Your task to perform on an android device: turn vacation reply on in the gmail app Image 0: 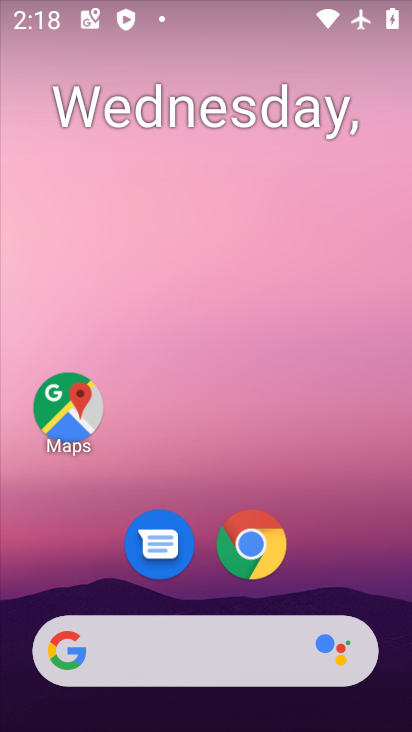
Step 0: drag from (370, 567) to (360, 35)
Your task to perform on an android device: turn vacation reply on in the gmail app Image 1: 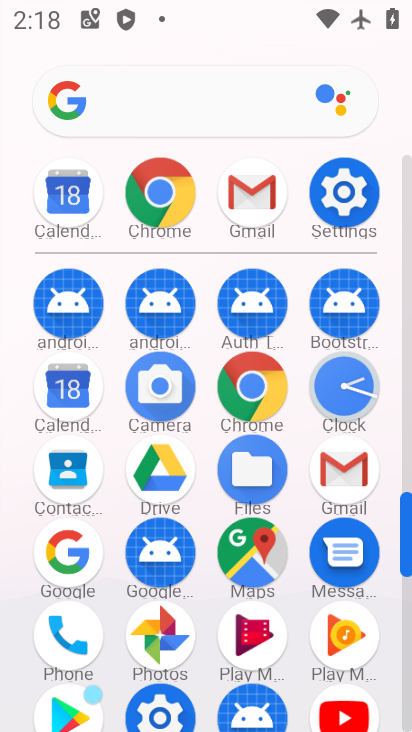
Step 1: click (323, 201)
Your task to perform on an android device: turn vacation reply on in the gmail app Image 2: 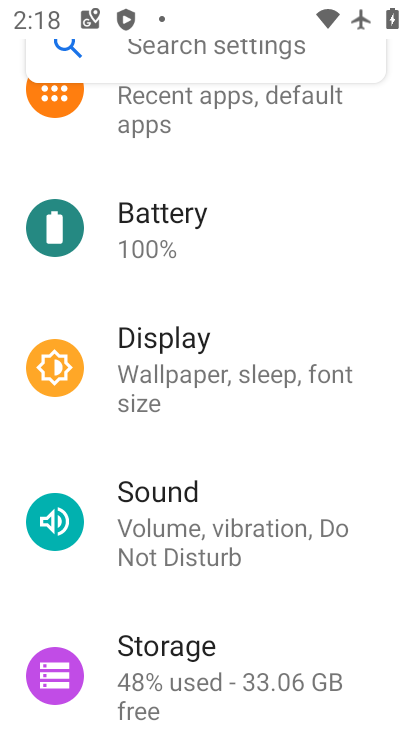
Step 2: drag from (147, 567) to (208, 263)
Your task to perform on an android device: turn vacation reply on in the gmail app Image 3: 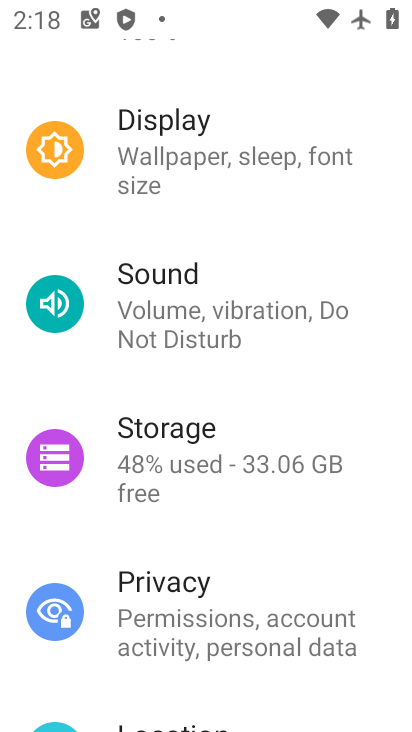
Step 3: press home button
Your task to perform on an android device: turn vacation reply on in the gmail app Image 4: 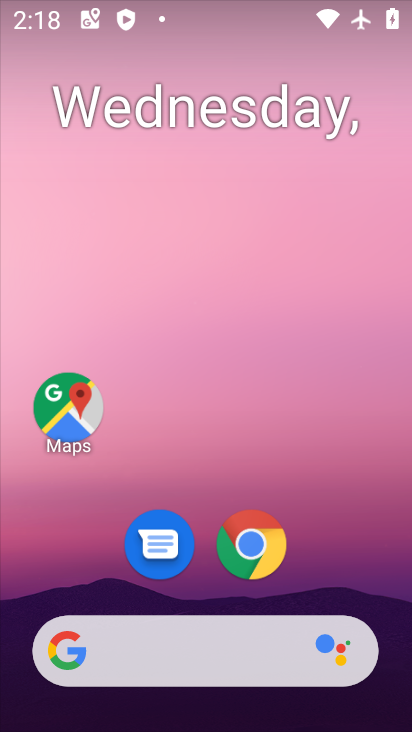
Step 4: drag from (390, 568) to (261, 56)
Your task to perform on an android device: turn vacation reply on in the gmail app Image 5: 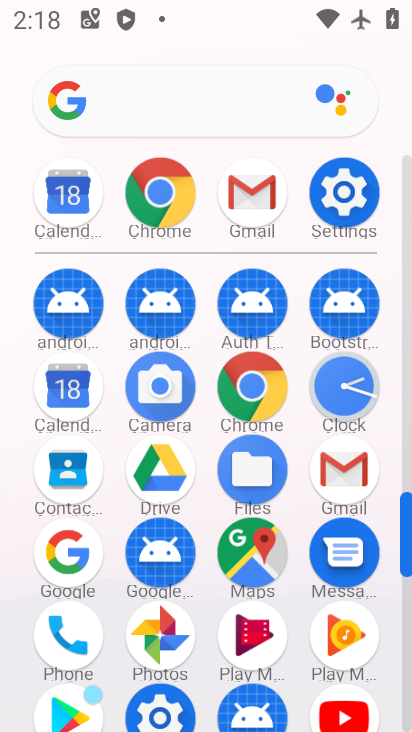
Step 5: click (353, 189)
Your task to perform on an android device: turn vacation reply on in the gmail app Image 6: 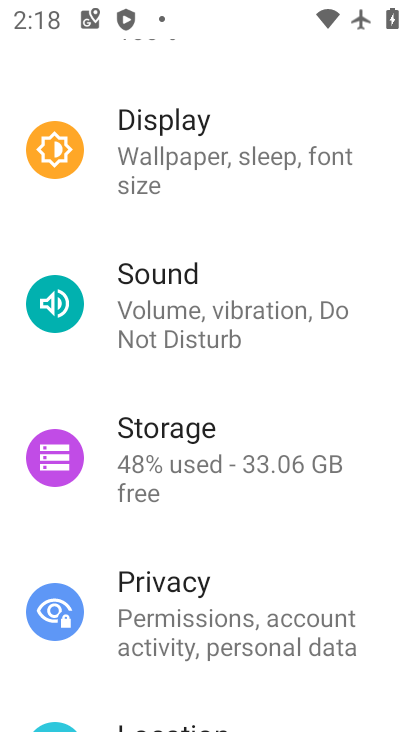
Step 6: drag from (193, 620) to (197, 368)
Your task to perform on an android device: turn vacation reply on in the gmail app Image 7: 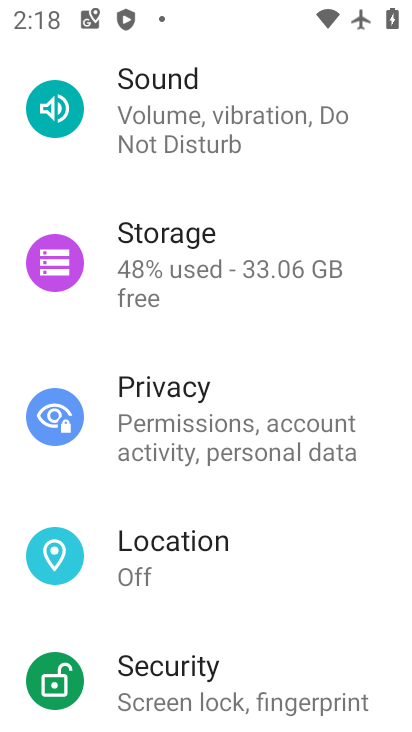
Step 7: drag from (220, 633) to (223, 40)
Your task to perform on an android device: turn vacation reply on in the gmail app Image 8: 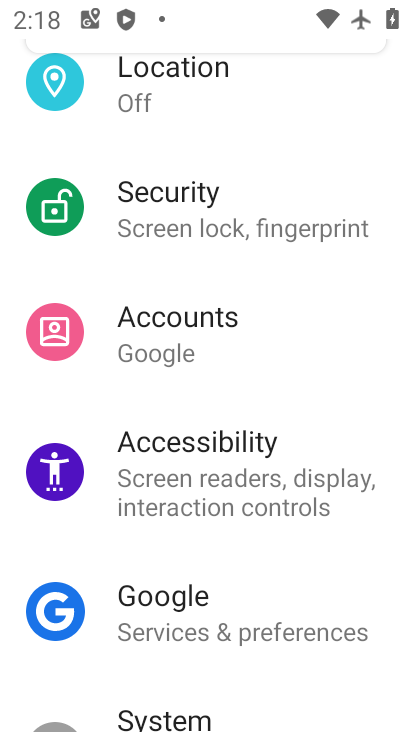
Step 8: drag from (175, 688) to (187, 247)
Your task to perform on an android device: turn vacation reply on in the gmail app Image 9: 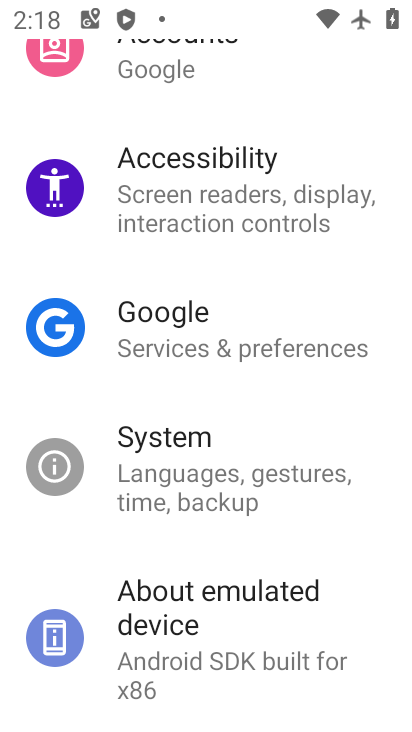
Step 9: click (176, 617)
Your task to perform on an android device: turn vacation reply on in the gmail app Image 10: 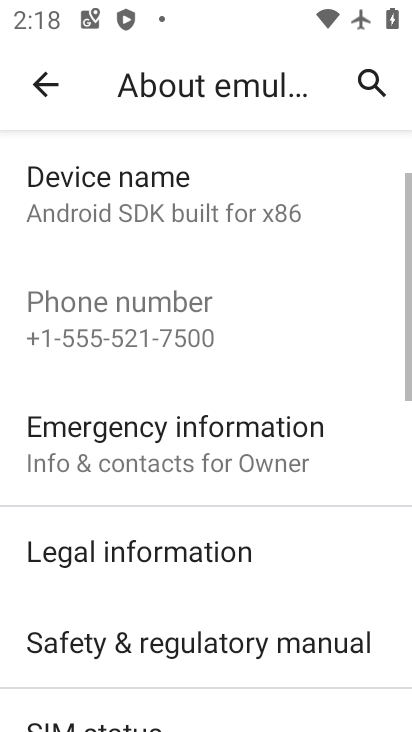
Step 10: press home button
Your task to perform on an android device: turn vacation reply on in the gmail app Image 11: 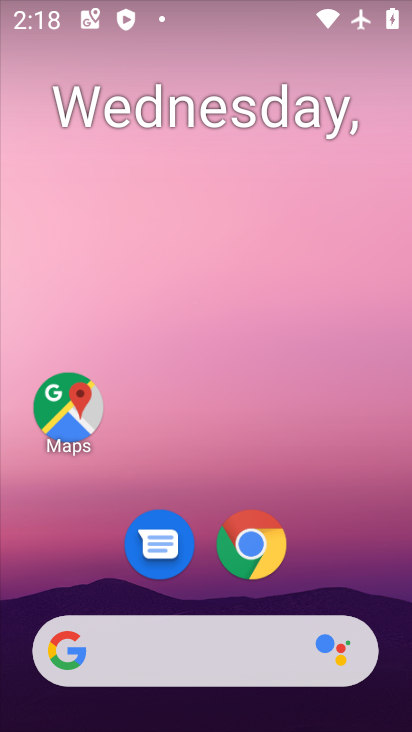
Step 11: drag from (69, 580) to (216, 19)
Your task to perform on an android device: turn vacation reply on in the gmail app Image 12: 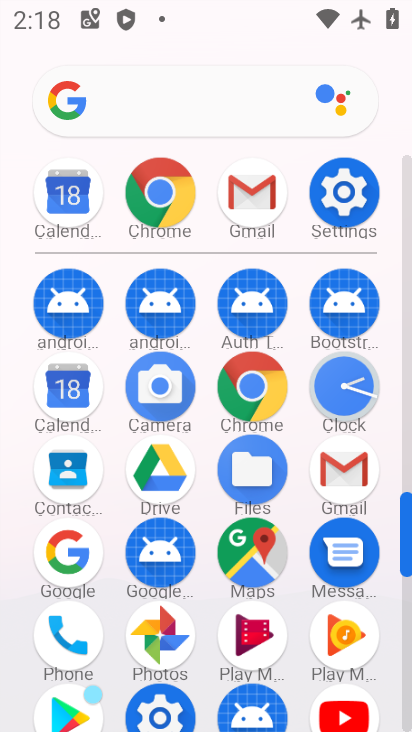
Step 12: click (245, 200)
Your task to perform on an android device: turn vacation reply on in the gmail app Image 13: 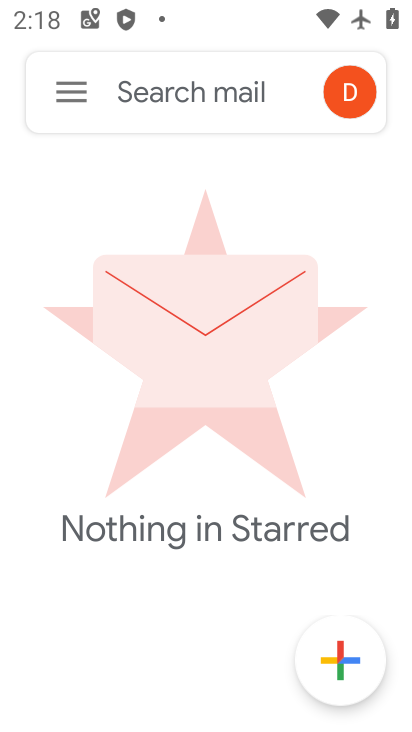
Step 13: click (72, 110)
Your task to perform on an android device: turn vacation reply on in the gmail app Image 14: 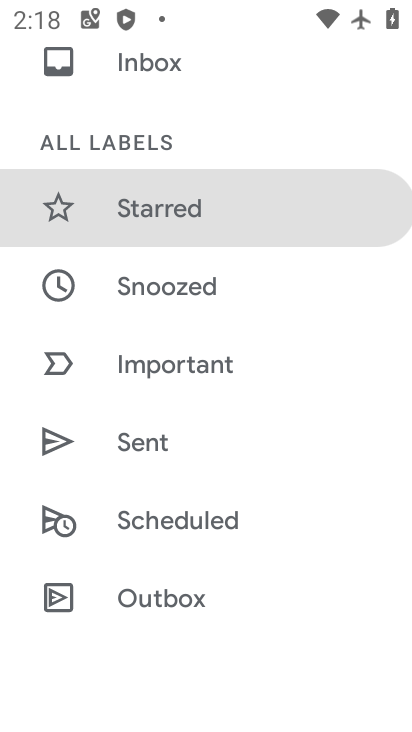
Step 14: drag from (144, 639) to (238, 220)
Your task to perform on an android device: turn vacation reply on in the gmail app Image 15: 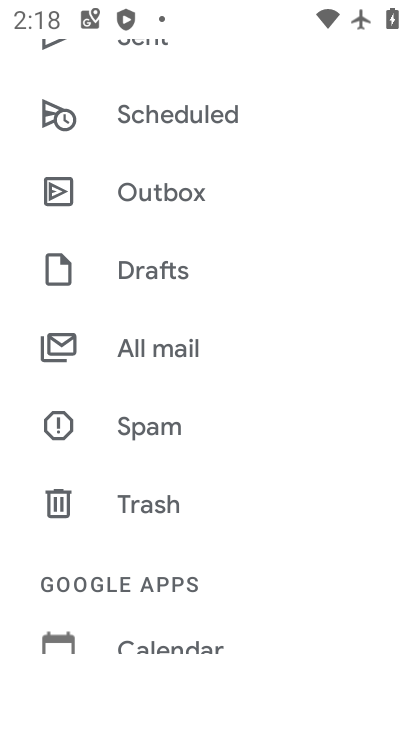
Step 15: drag from (215, 649) to (283, 161)
Your task to perform on an android device: turn vacation reply on in the gmail app Image 16: 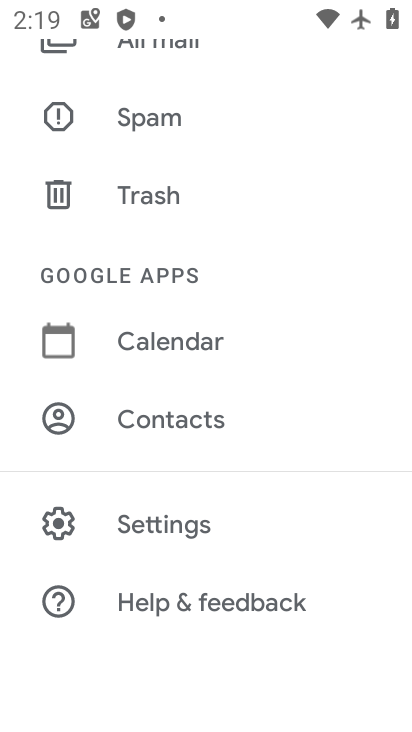
Step 16: click (162, 511)
Your task to perform on an android device: turn vacation reply on in the gmail app Image 17: 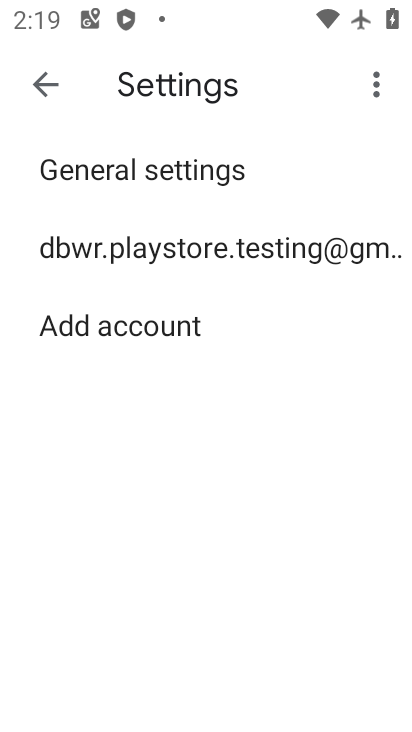
Step 17: click (191, 254)
Your task to perform on an android device: turn vacation reply on in the gmail app Image 18: 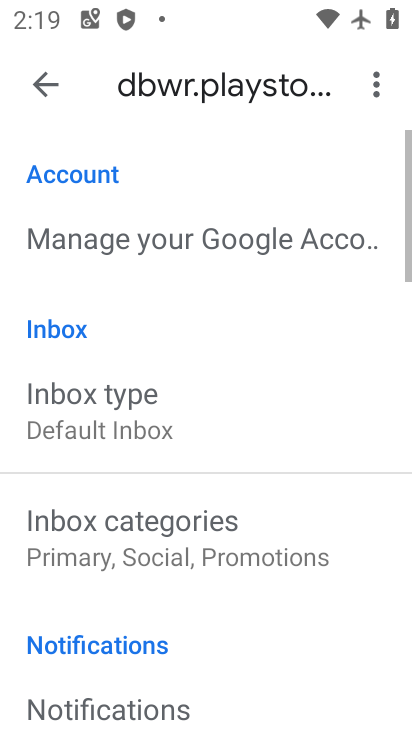
Step 18: drag from (146, 544) to (240, 167)
Your task to perform on an android device: turn vacation reply on in the gmail app Image 19: 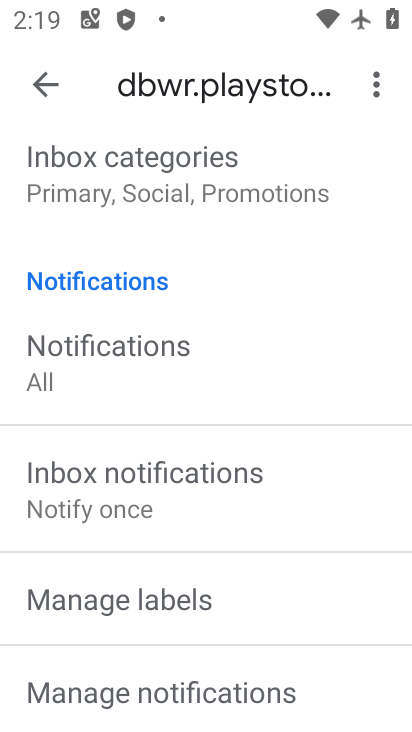
Step 19: drag from (190, 630) to (312, 133)
Your task to perform on an android device: turn vacation reply on in the gmail app Image 20: 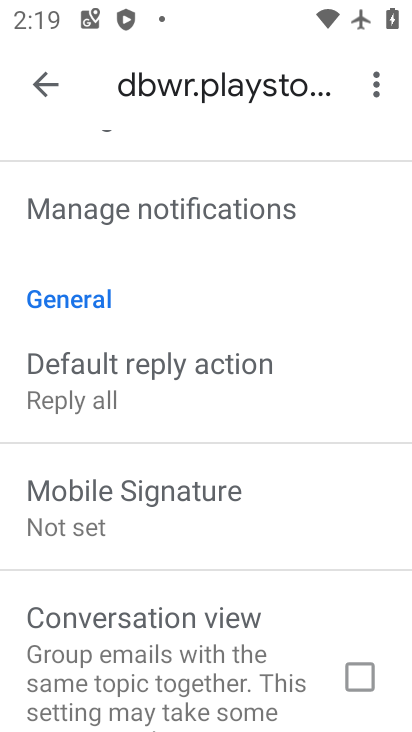
Step 20: drag from (197, 637) to (275, 285)
Your task to perform on an android device: turn vacation reply on in the gmail app Image 21: 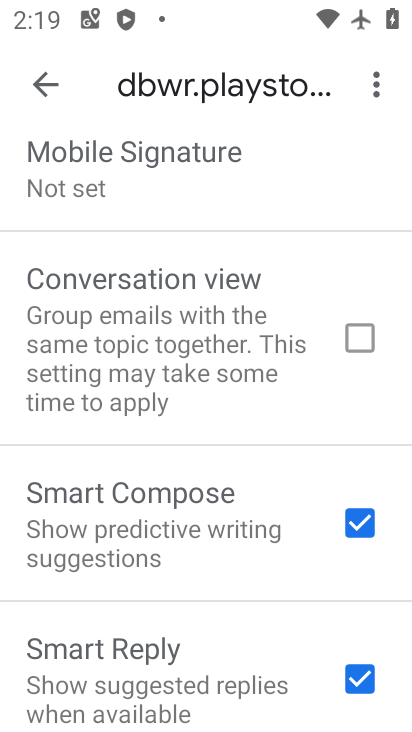
Step 21: drag from (215, 606) to (280, 306)
Your task to perform on an android device: turn vacation reply on in the gmail app Image 22: 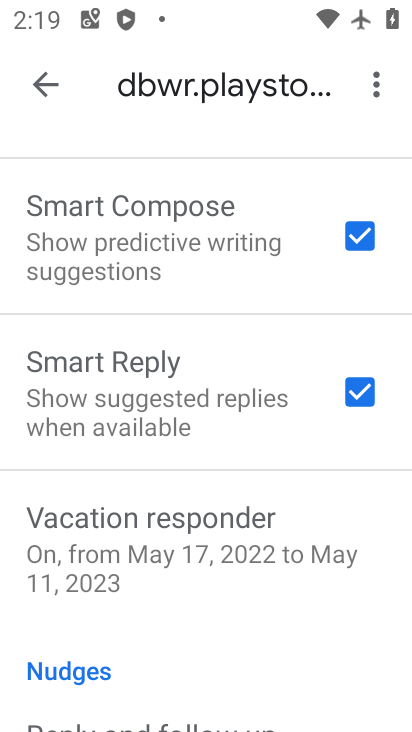
Step 22: click (204, 532)
Your task to perform on an android device: turn vacation reply on in the gmail app Image 23: 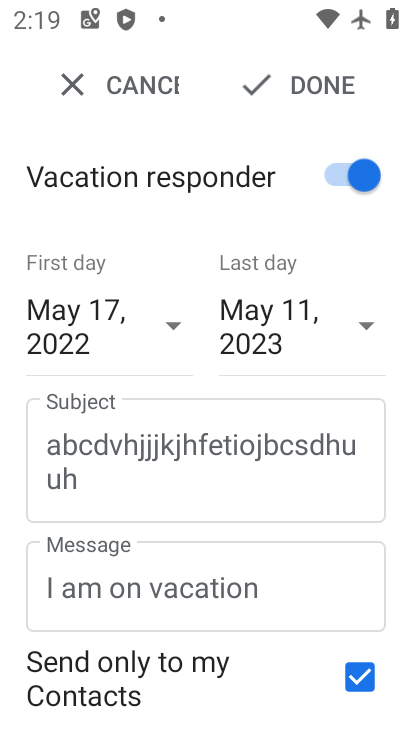
Step 23: click (367, 88)
Your task to perform on an android device: turn vacation reply on in the gmail app Image 24: 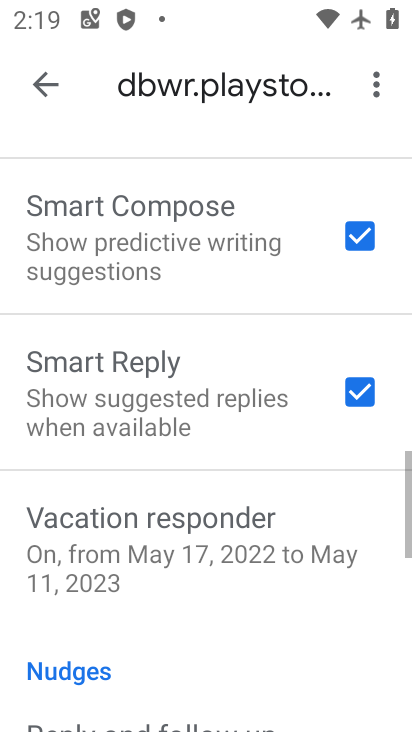
Step 24: task complete